Your task to perform on an android device: open device folders in google photos Image 0: 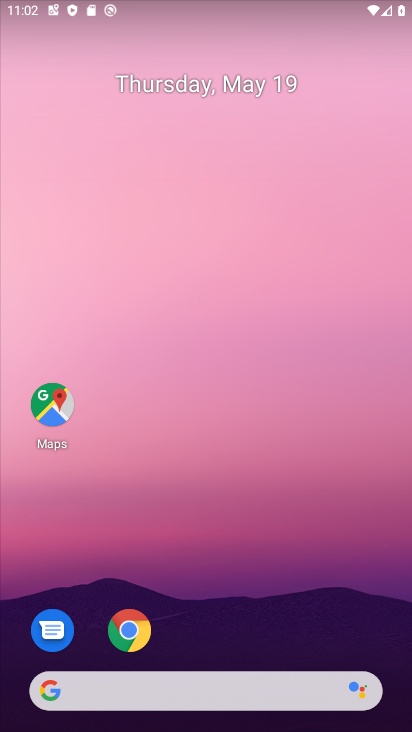
Step 0: drag from (261, 583) to (172, 95)
Your task to perform on an android device: open device folders in google photos Image 1: 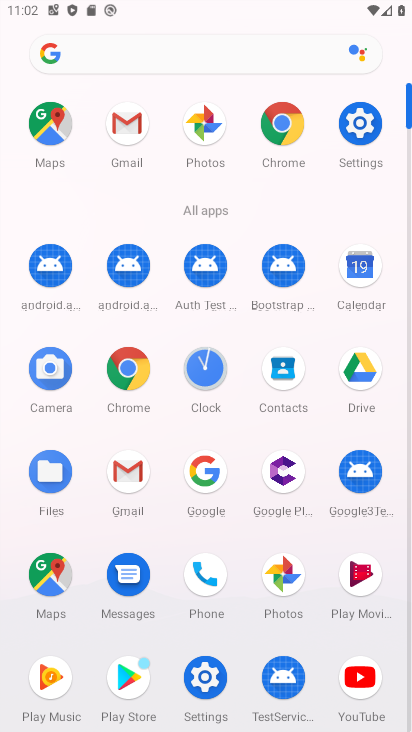
Step 1: click (204, 122)
Your task to perform on an android device: open device folders in google photos Image 2: 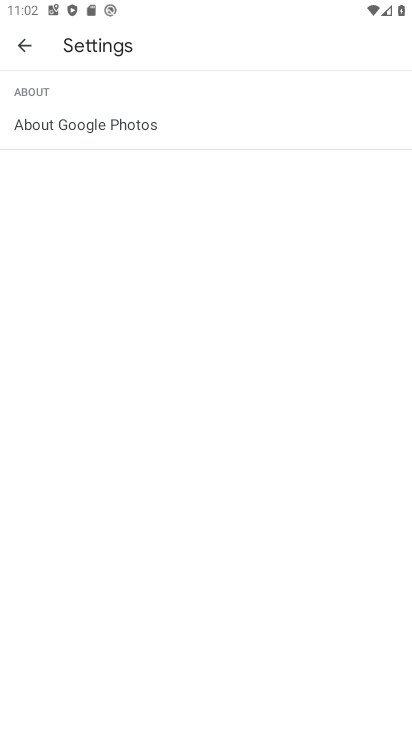
Step 2: press back button
Your task to perform on an android device: open device folders in google photos Image 3: 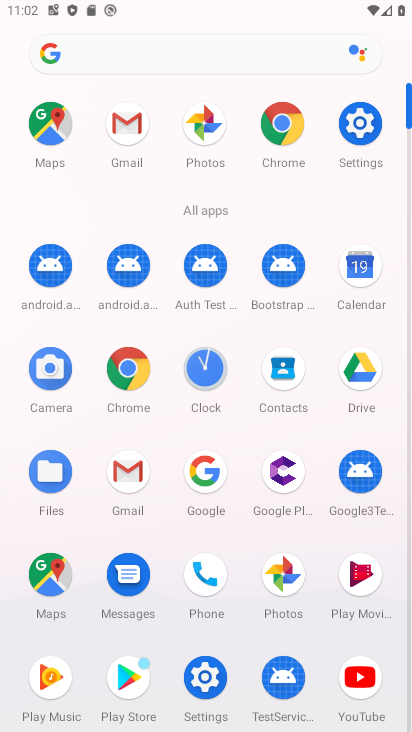
Step 3: click (205, 122)
Your task to perform on an android device: open device folders in google photos Image 4: 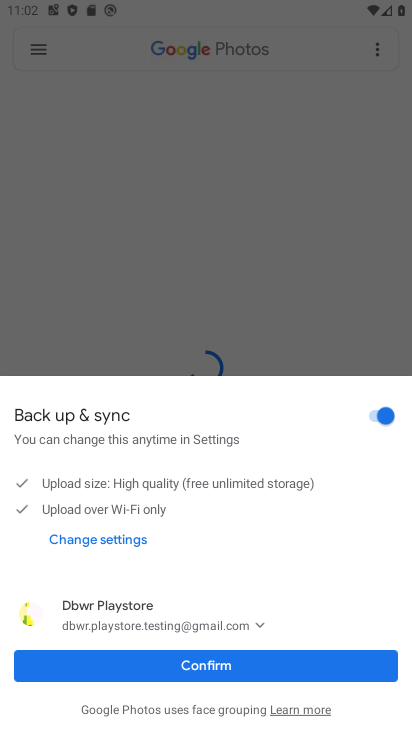
Step 4: click (190, 659)
Your task to perform on an android device: open device folders in google photos Image 5: 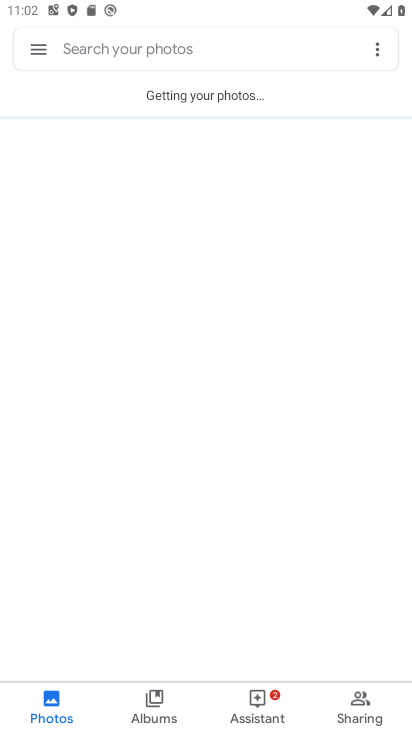
Step 5: click (35, 49)
Your task to perform on an android device: open device folders in google photos Image 6: 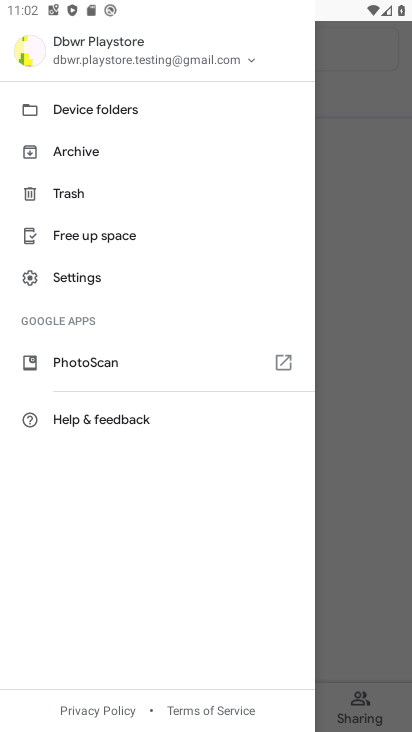
Step 6: click (124, 111)
Your task to perform on an android device: open device folders in google photos Image 7: 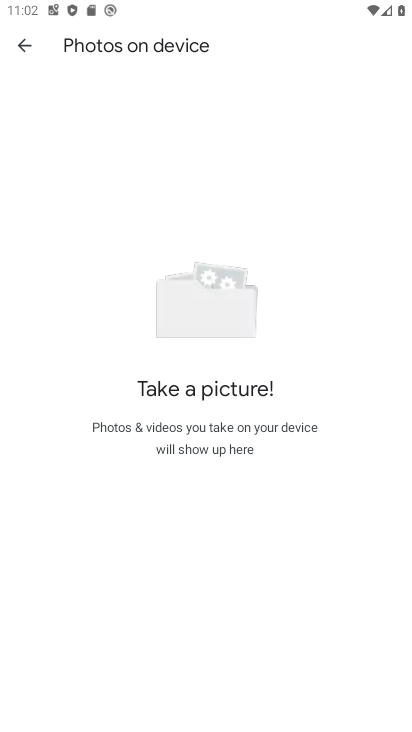
Step 7: task complete